Your task to perform on an android device: turn off sleep mode Image 0: 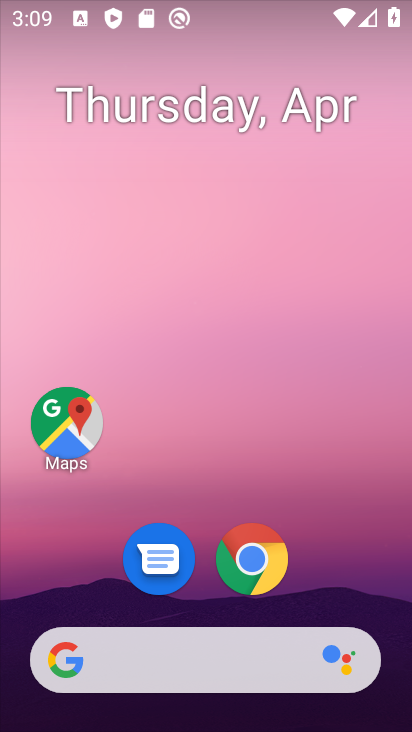
Step 0: drag from (304, 497) to (344, 89)
Your task to perform on an android device: turn off sleep mode Image 1: 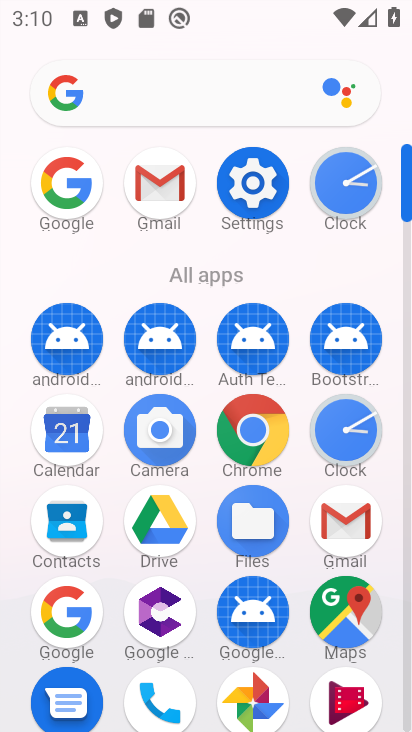
Step 1: click (247, 190)
Your task to perform on an android device: turn off sleep mode Image 2: 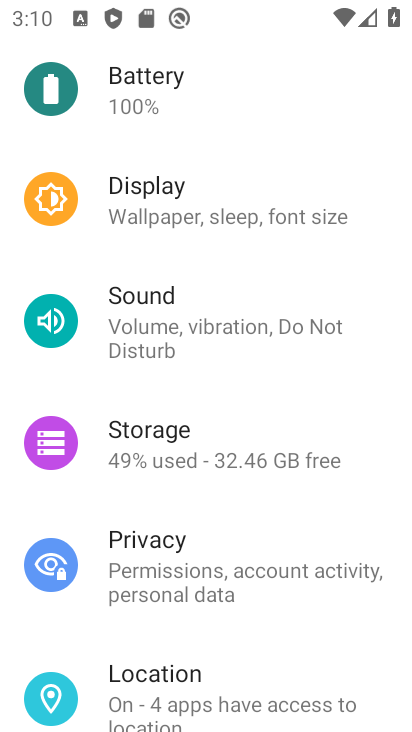
Step 2: click (223, 223)
Your task to perform on an android device: turn off sleep mode Image 3: 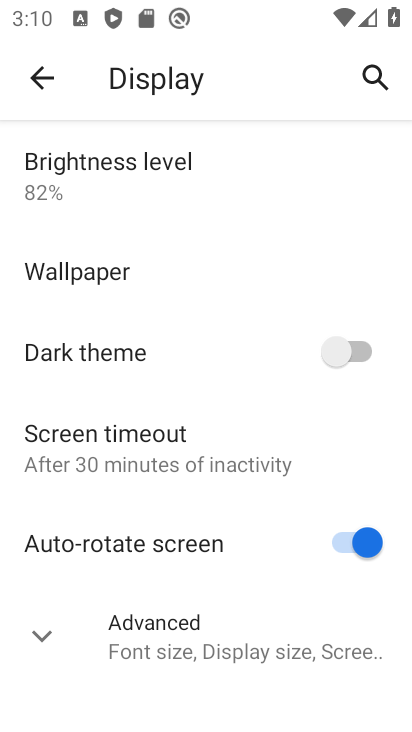
Step 3: click (194, 428)
Your task to perform on an android device: turn off sleep mode Image 4: 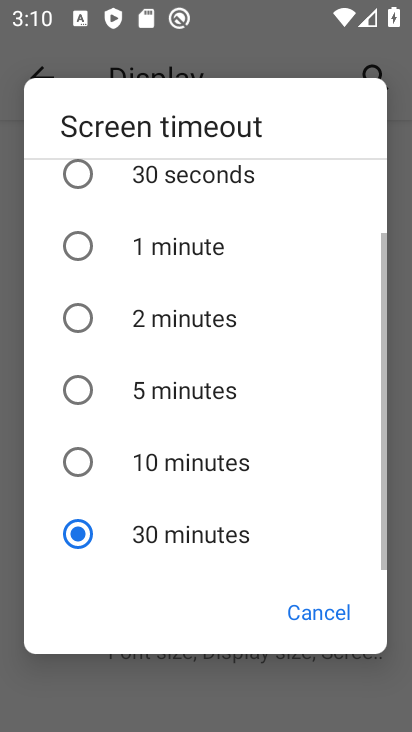
Step 4: task complete